Your task to perform on an android device: Open CNN.com Image 0: 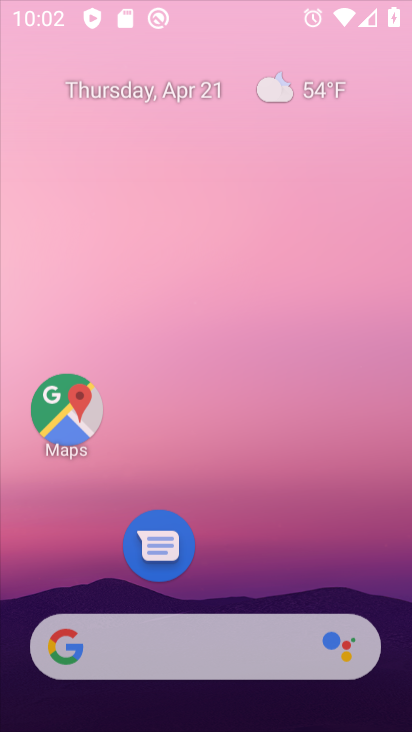
Step 0: click (65, 429)
Your task to perform on an android device: Open CNN.com Image 1: 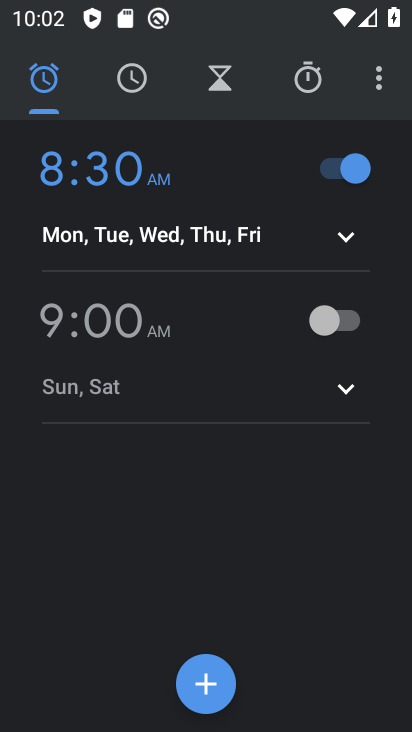
Step 1: press back button
Your task to perform on an android device: Open CNN.com Image 2: 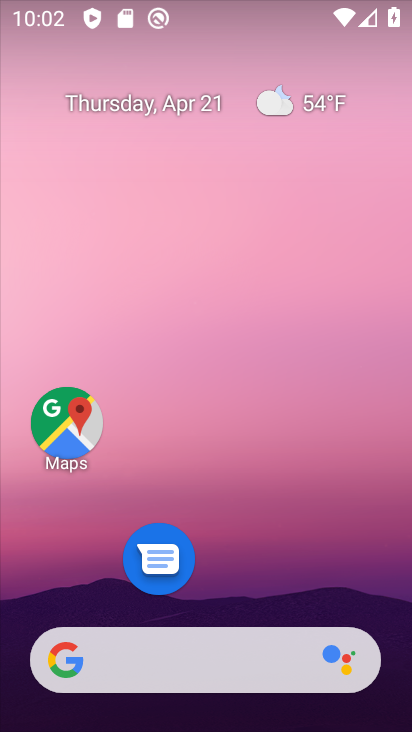
Step 2: click (57, 429)
Your task to perform on an android device: Open CNN.com Image 3: 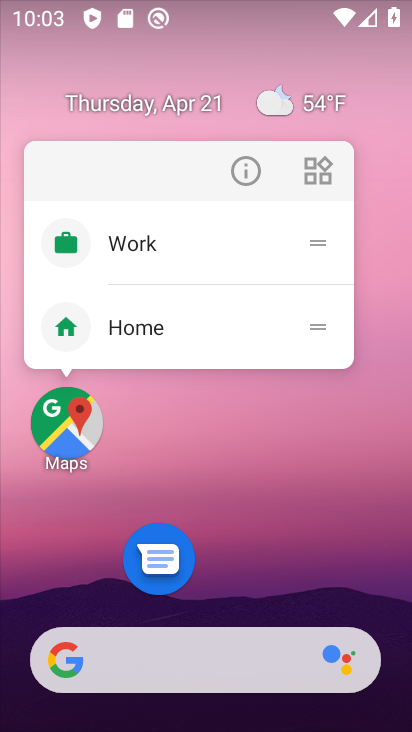
Step 3: click (298, 550)
Your task to perform on an android device: Open CNN.com Image 4: 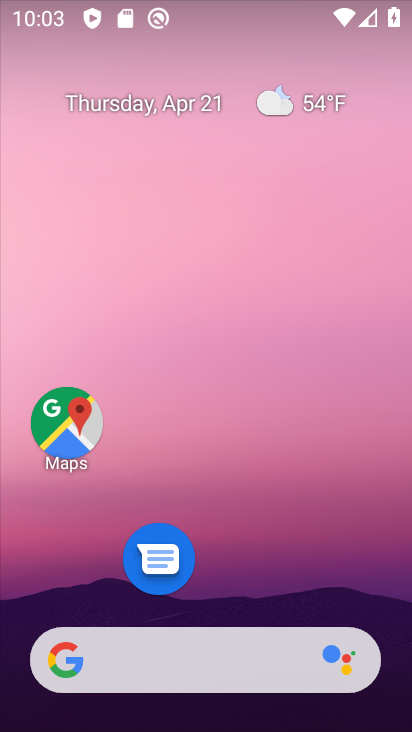
Step 4: drag from (268, 580) to (349, 9)
Your task to perform on an android device: Open CNN.com Image 5: 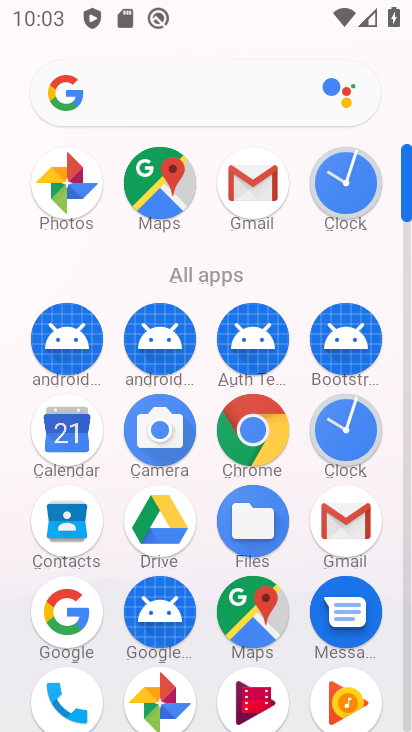
Step 5: click (257, 431)
Your task to perform on an android device: Open CNN.com Image 6: 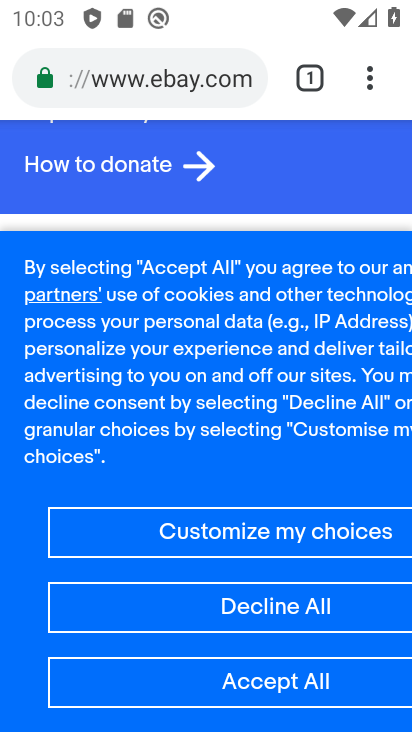
Step 6: click (312, 76)
Your task to perform on an android device: Open CNN.com Image 7: 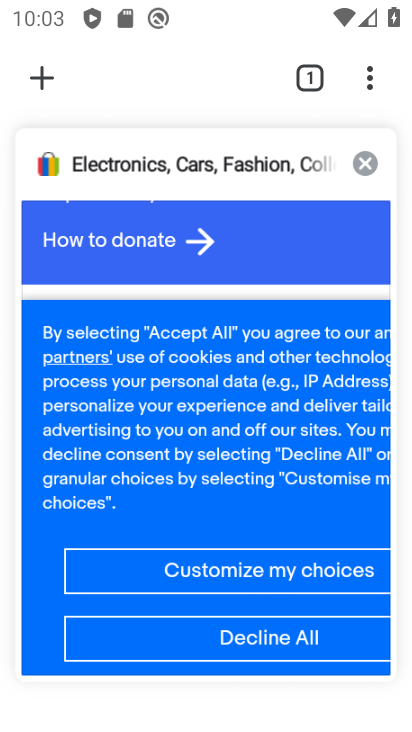
Step 7: click (44, 72)
Your task to perform on an android device: Open CNN.com Image 8: 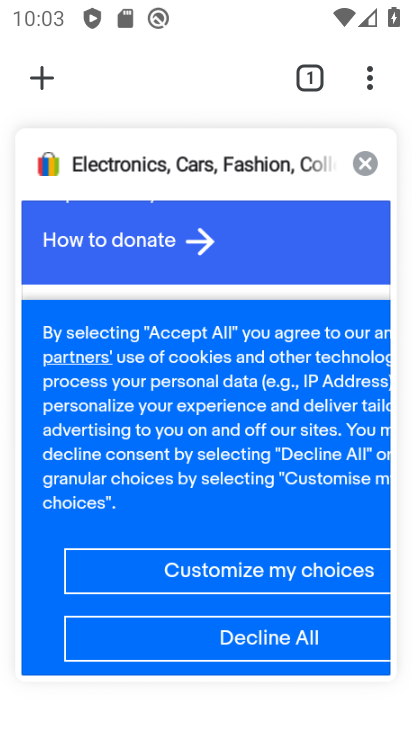
Step 8: click (41, 60)
Your task to perform on an android device: Open CNN.com Image 9: 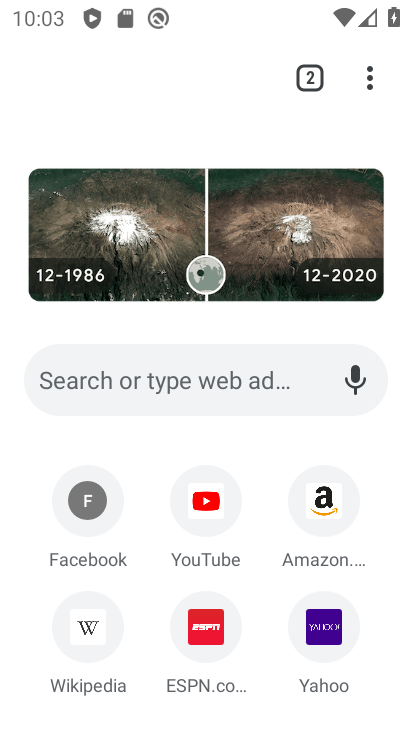
Step 9: click (165, 376)
Your task to perform on an android device: Open CNN.com Image 10: 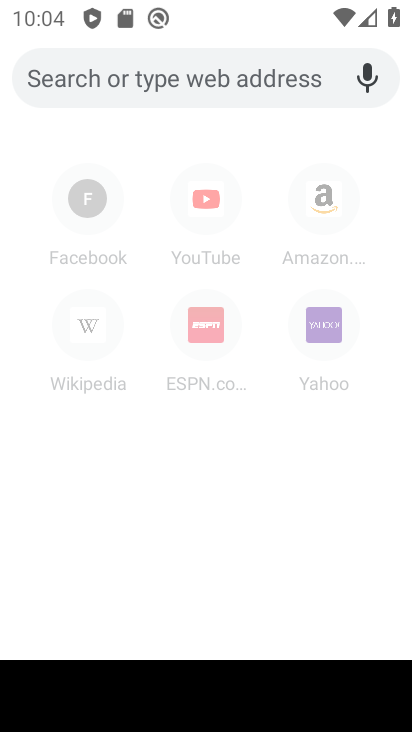
Step 10: type "cnn.com"
Your task to perform on an android device: Open CNN.com Image 11: 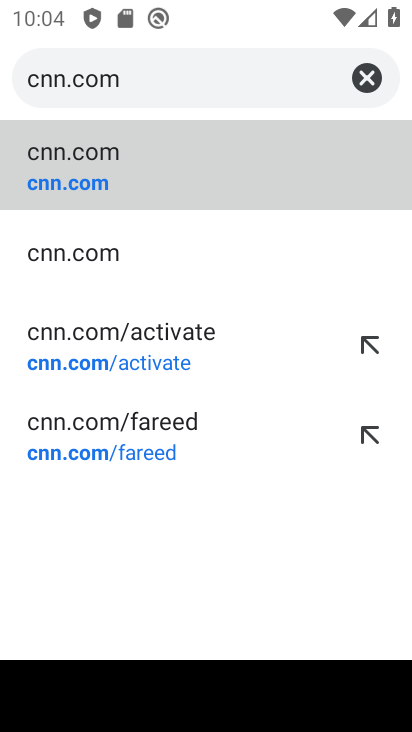
Step 11: click (245, 179)
Your task to perform on an android device: Open CNN.com Image 12: 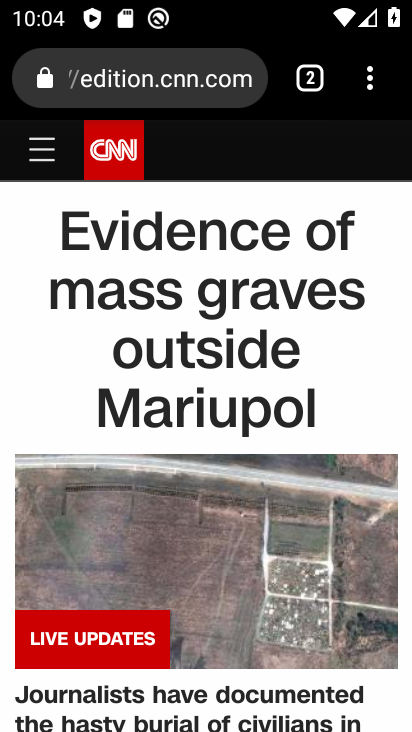
Step 12: task complete